Your task to perform on an android device: turn on data saver in the chrome app Image 0: 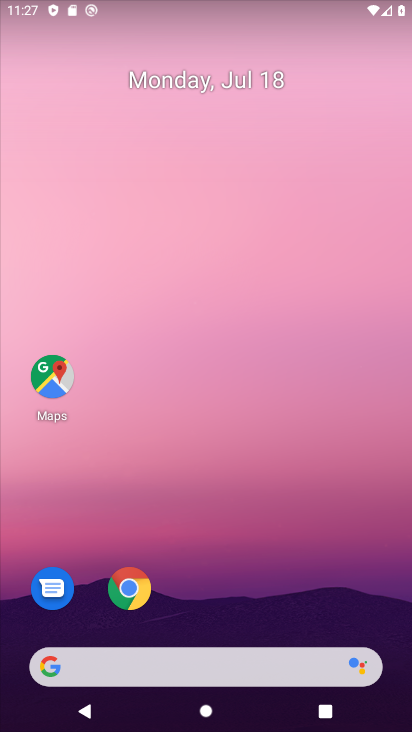
Step 0: click (132, 580)
Your task to perform on an android device: turn on data saver in the chrome app Image 1: 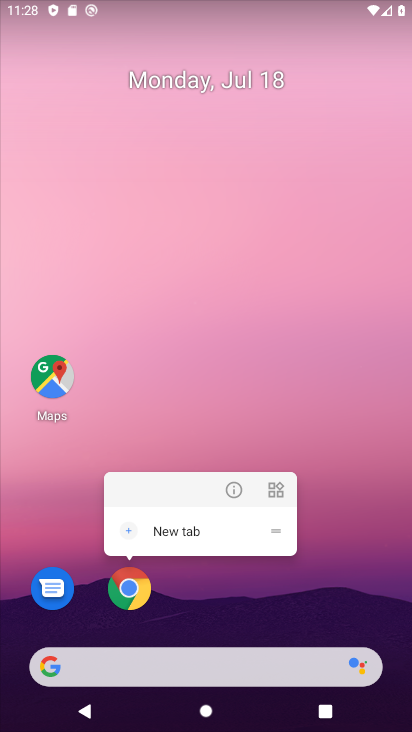
Step 1: click (123, 575)
Your task to perform on an android device: turn on data saver in the chrome app Image 2: 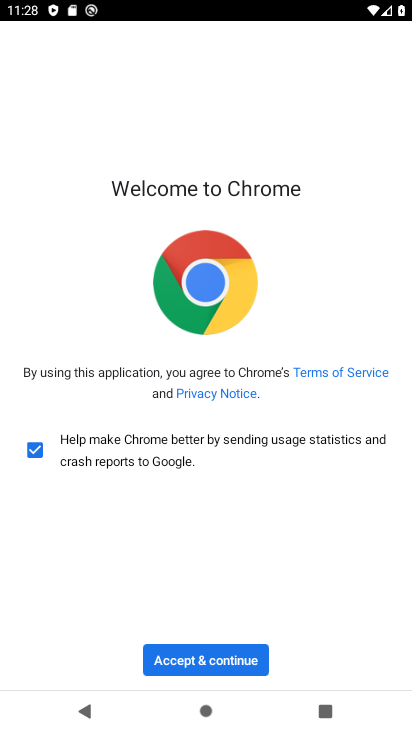
Step 2: click (239, 656)
Your task to perform on an android device: turn on data saver in the chrome app Image 3: 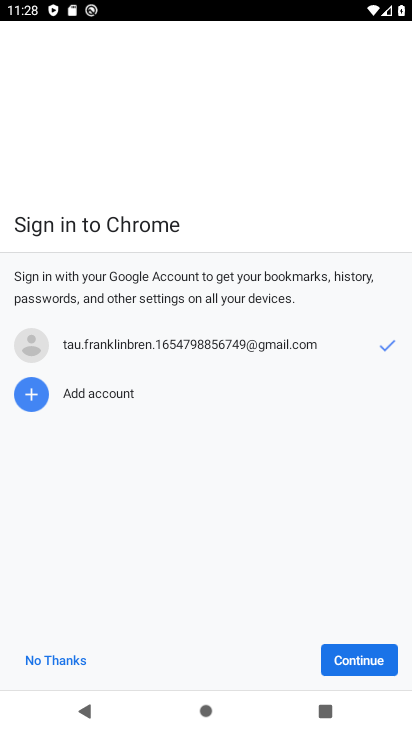
Step 3: click (333, 650)
Your task to perform on an android device: turn on data saver in the chrome app Image 4: 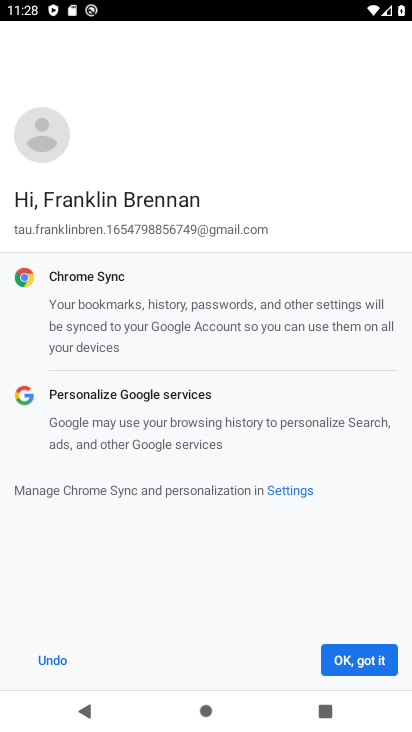
Step 4: click (331, 662)
Your task to perform on an android device: turn on data saver in the chrome app Image 5: 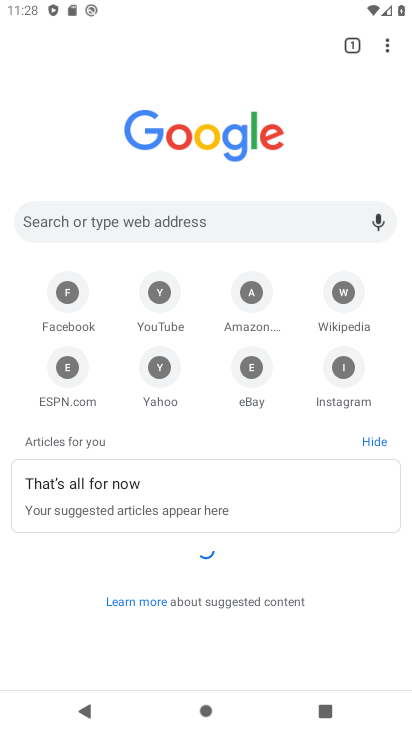
Step 5: click (384, 47)
Your task to perform on an android device: turn on data saver in the chrome app Image 6: 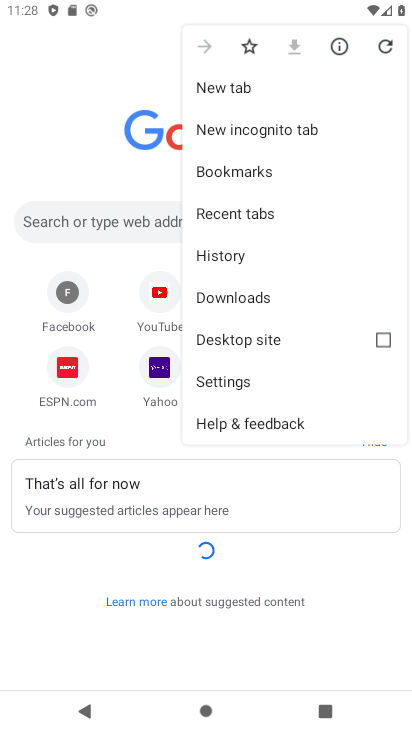
Step 6: click (228, 383)
Your task to perform on an android device: turn on data saver in the chrome app Image 7: 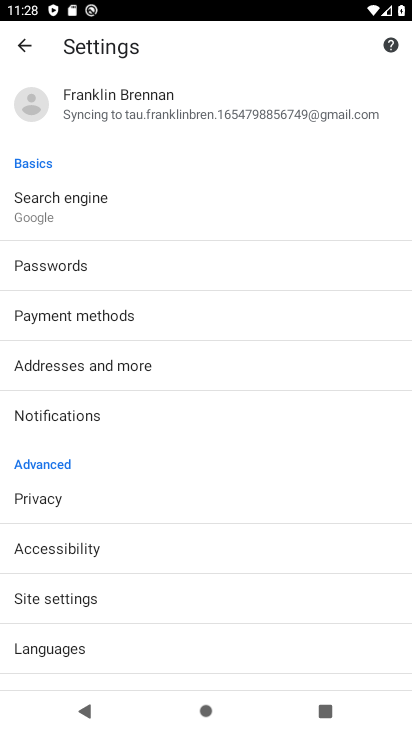
Step 7: click (39, 596)
Your task to perform on an android device: turn on data saver in the chrome app Image 8: 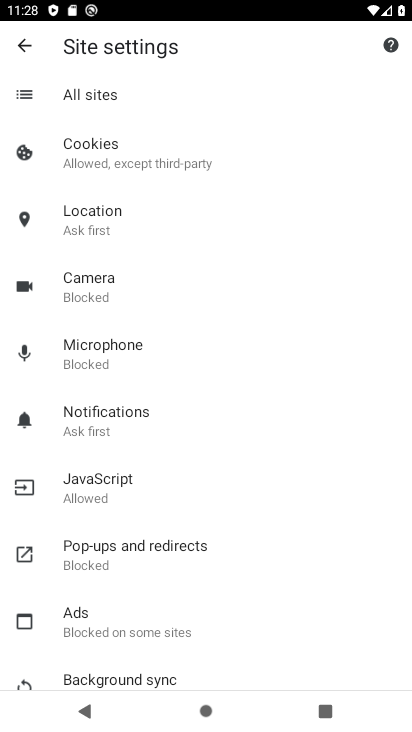
Step 8: click (18, 41)
Your task to perform on an android device: turn on data saver in the chrome app Image 9: 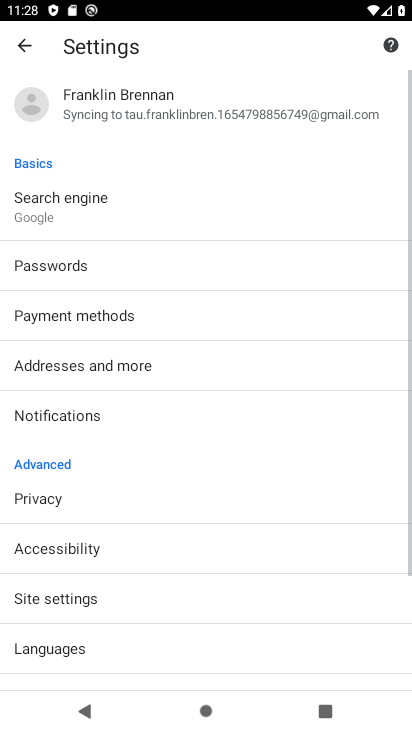
Step 9: drag from (104, 637) to (138, 170)
Your task to perform on an android device: turn on data saver in the chrome app Image 10: 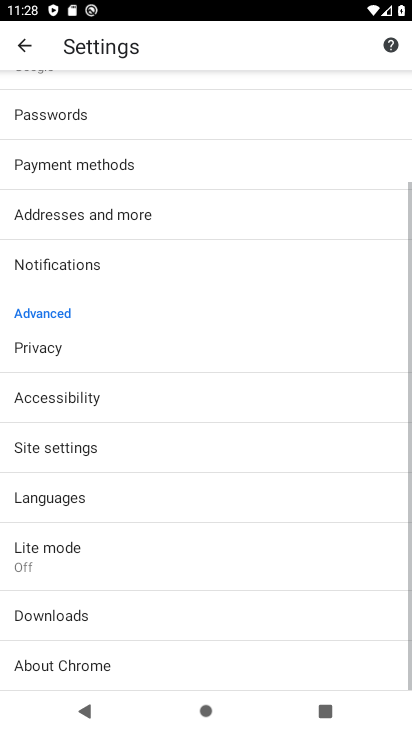
Step 10: click (61, 555)
Your task to perform on an android device: turn on data saver in the chrome app Image 11: 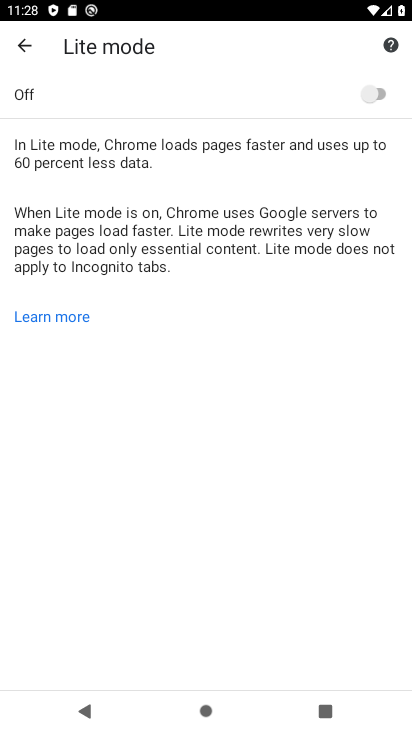
Step 11: click (378, 85)
Your task to perform on an android device: turn on data saver in the chrome app Image 12: 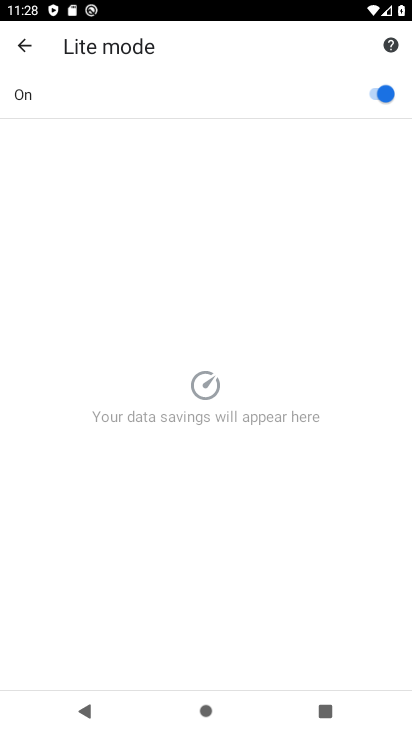
Step 12: task complete